Your task to perform on an android device: delete a single message in the gmail app Image 0: 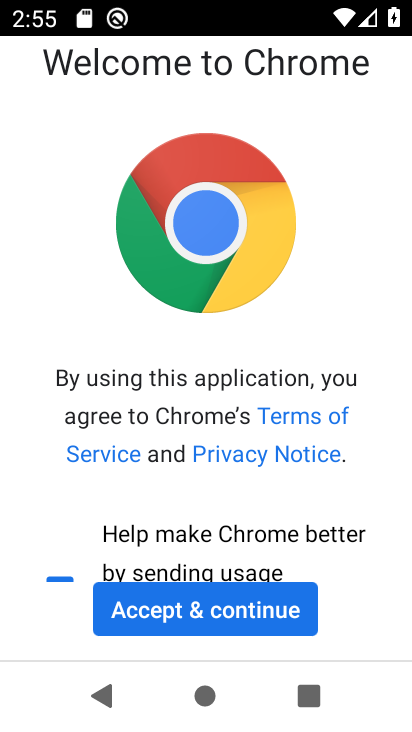
Step 0: press home button
Your task to perform on an android device: delete a single message in the gmail app Image 1: 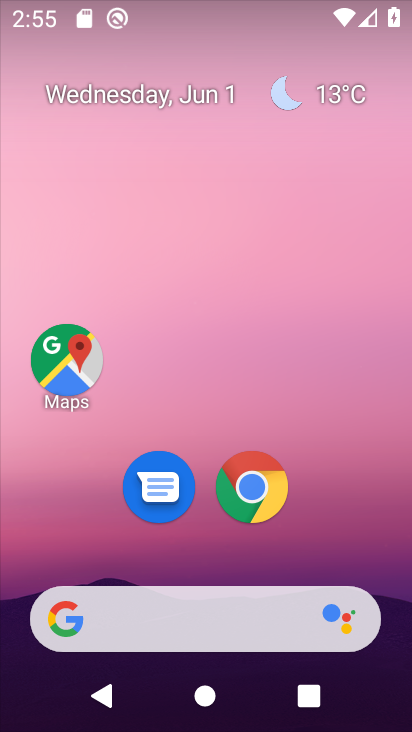
Step 1: drag from (385, 587) to (275, 156)
Your task to perform on an android device: delete a single message in the gmail app Image 2: 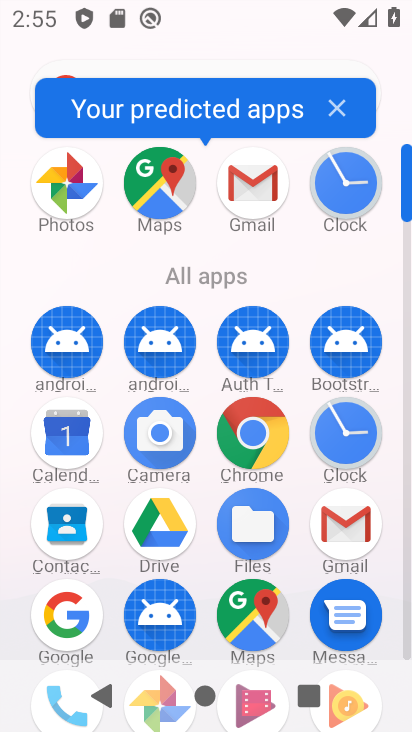
Step 2: click (261, 195)
Your task to perform on an android device: delete a single message in the gmail app Image 3: 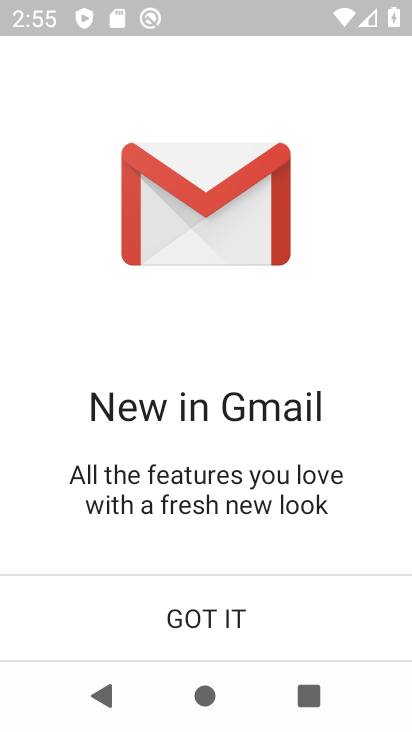
Step 3: click (216, 604)
Your task to perform on an android device: delete a single message in the gmail app Image 4: 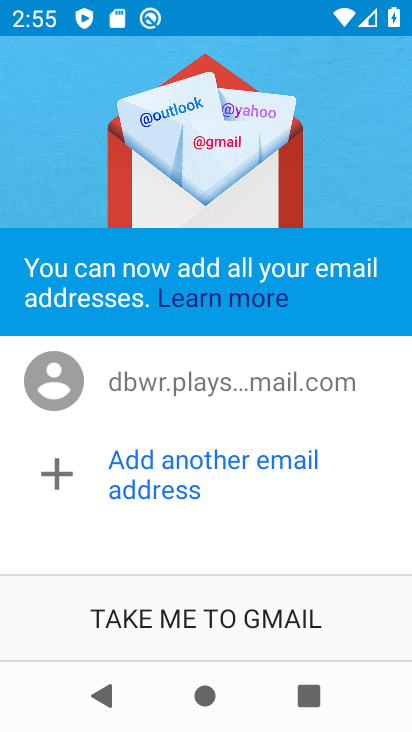
Step 4: click (216, 604)
Your task to perform on an android device: delete a single message in the gmail app Image 5: 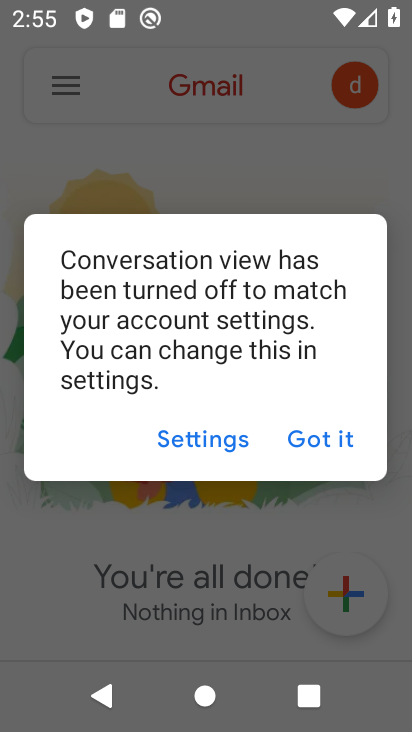
Step 5: click (333, 428)
Your task to perform on an android device: delete a single message in the gmail app Image 6: 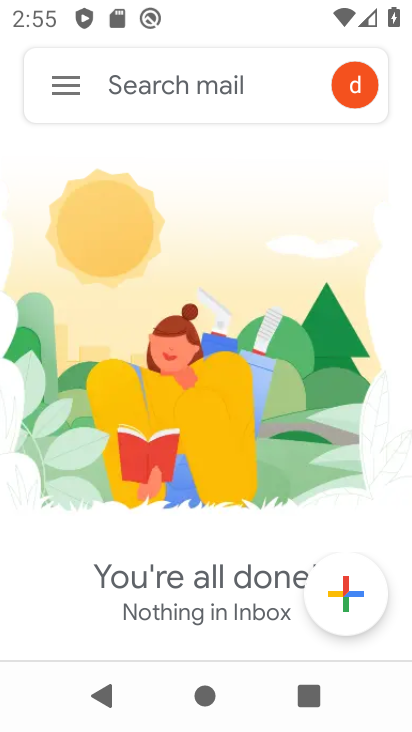
Step 6: task complete